Your task to perform on an android device: empty trash in the gmail app Image 0: 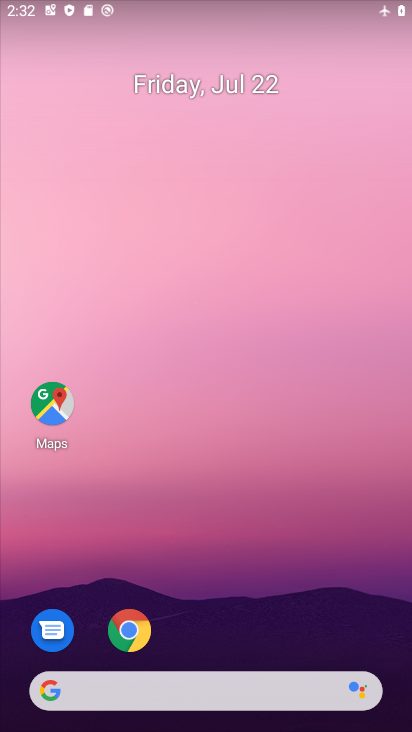
Step 0: drag from (218, 675) to (172, 91)
Your task to perform on an android device: empty trash in the gmail app Image 1: 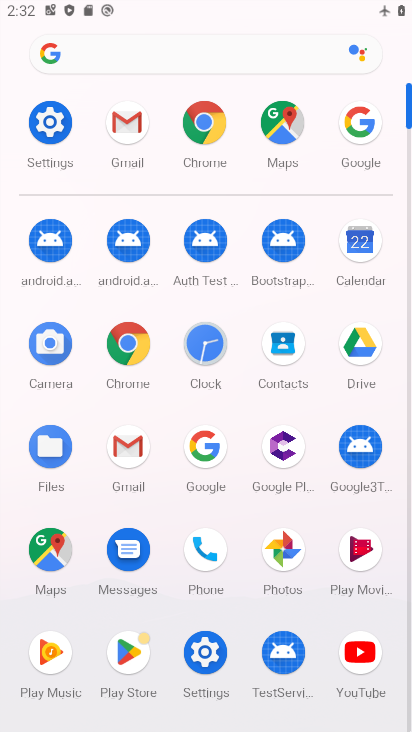
Step 1: click (119, 436)
Your task to perform on an android device: empty trash in the gmail app Image 2: 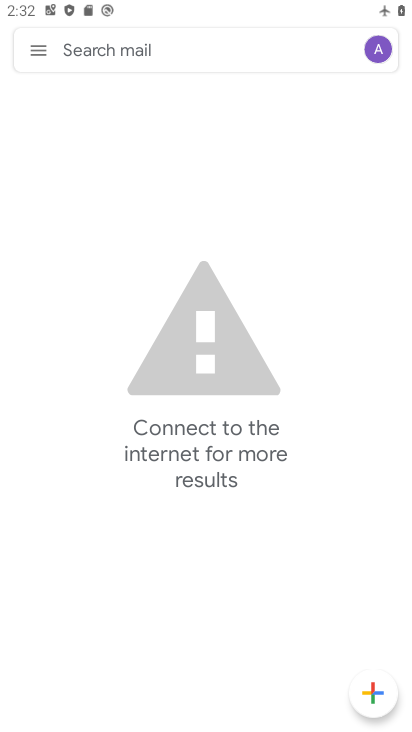
Step 2: click (34, 51)
Your task to perform on an android device: empty trash in the gmail app Image 3: 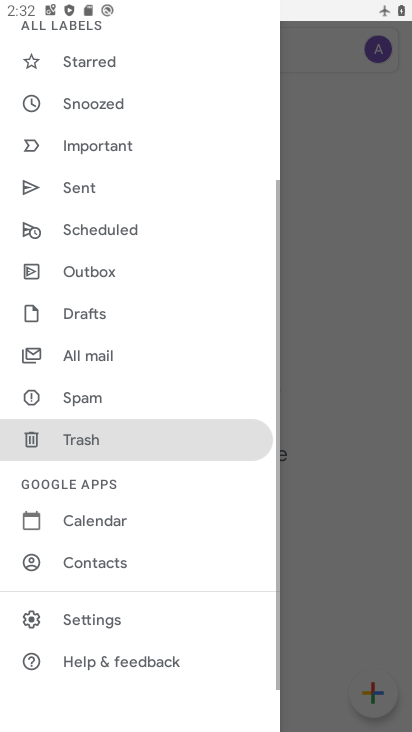
Step 3: click (100, 453)
Your task to perform on an android device: empty trash in the gmail app Image 4: 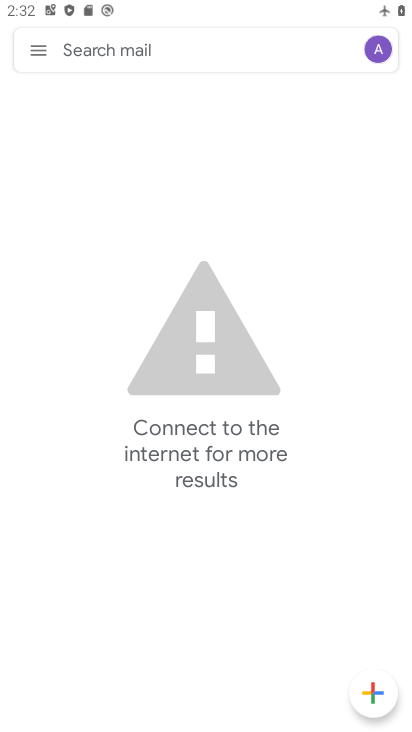
Step 4: task complete